Your task to perform on an android device: add a contact in the contacts app Image 0: 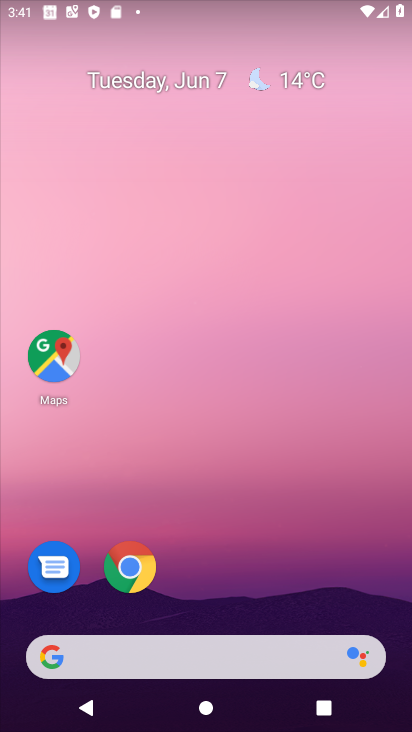
Step 0: drag from (208, 481) to (175, 212)
Your task to perform on an android device: add a contact in the contacts app Image 1: 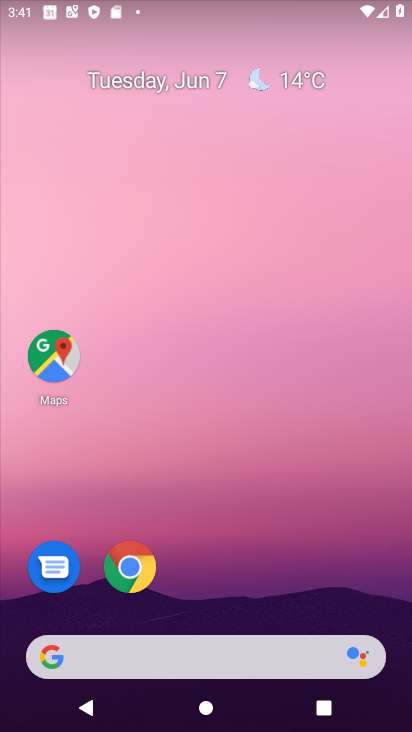
Step 1: drag from (205, 591) to (175, 211)
Your task to perform on an android device: add a contact in the contacts app Image 2: 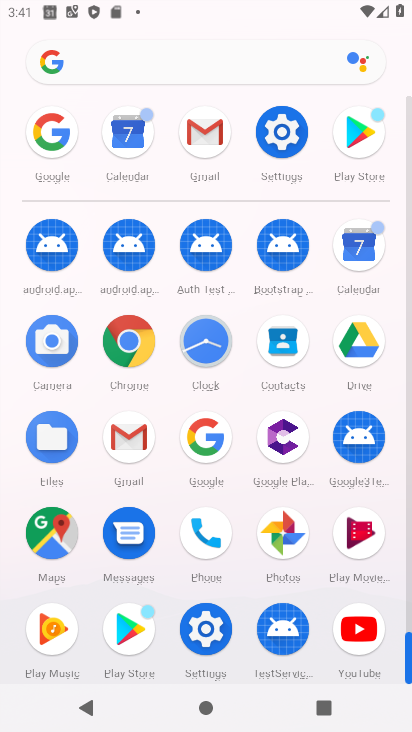
Step 2: click (286, 352)
Your task to perform on an android device: add a contact in the contacts app Image 3: 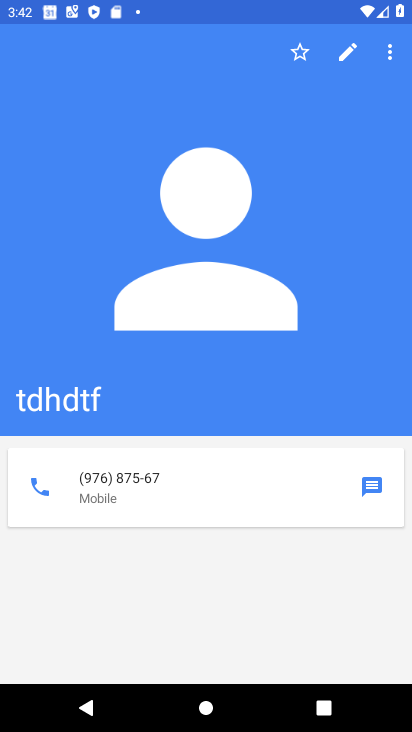
Step 3: press back button
Your task to perform on an android device: add a contact in the contacts app Image 4: 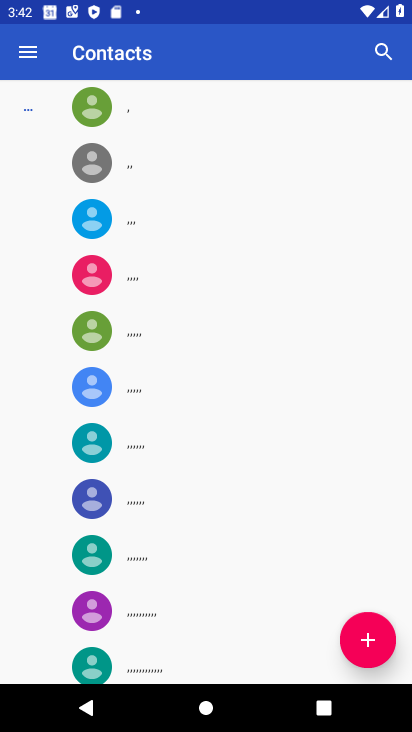
Step 4: click (371, 649)
Your task to perform on an android device: add a contact in the contacts app Image 5: 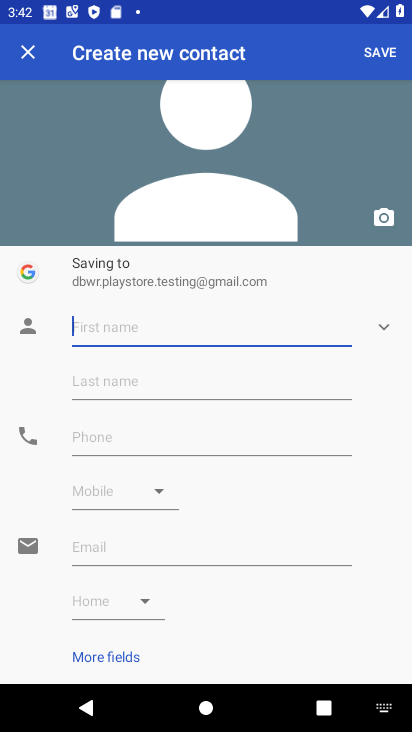
Step 5: type "gfnjf"
Your task to perform on an android device: add a contact in the contacts app Image 6: 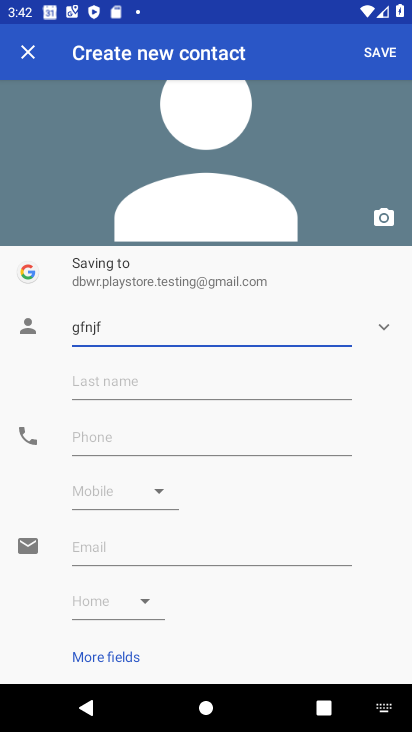
Step 6: click (233, 433)
Your task to perform on an android device: add a contact in the contacts app Image 7: 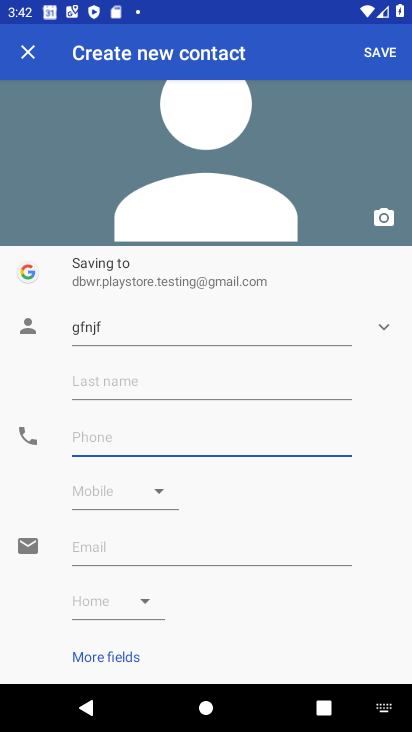
Step 7: type "97686578678"
Your task to perform on an android device: add a contact in the contacts app Image 8: 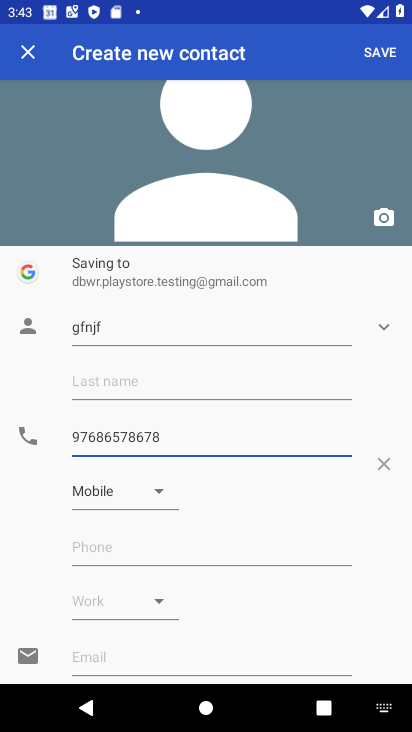
Step 8: click (395, 55)
Your task to perform on an android device: add a contact in the contacts app Image 9: 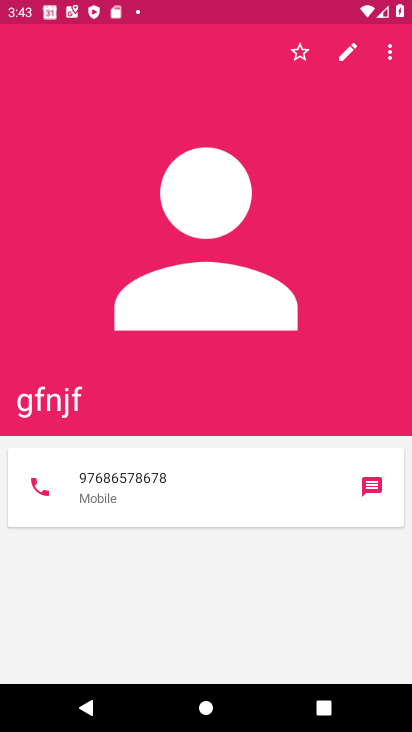
Step 9: task complete